Your task to perform on an android device: change alarm snooze length Image 0: 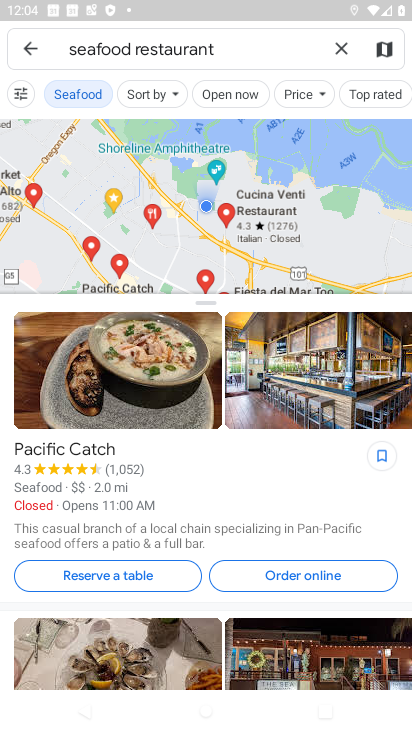
Step 0: press home button
Your task to perform on an android device: change alarm snooze length Image 1: 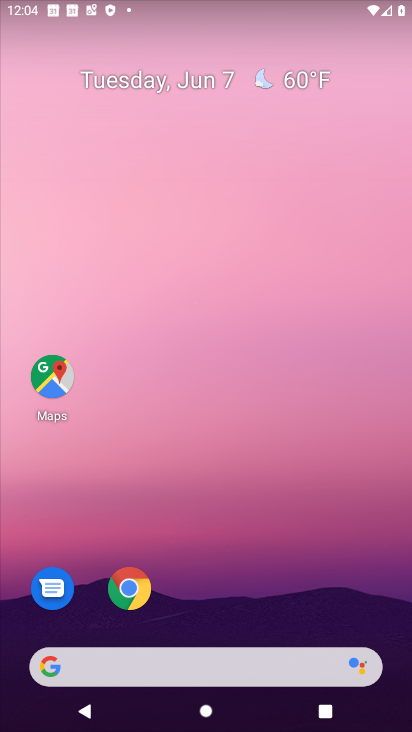
Step 1: drag from (152, 660) to (184, 114)
Your task to perform on an android device: change alarm snooze length Image 2: 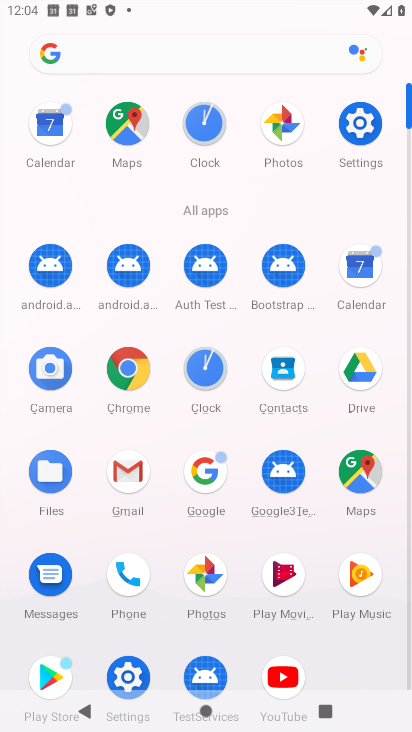
Step 2: click (203, 112)
Your task to perform on an android device: change alarm snooze length Image 3: 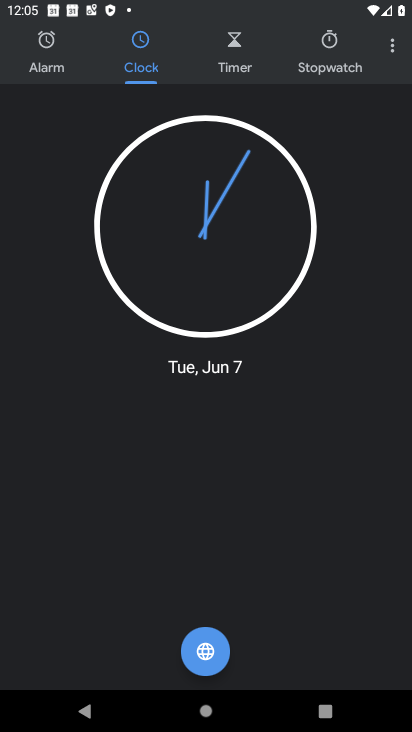
Step 3: click (389, 45)
Your task to perform on an android device: change alarm snooze length Image 4: 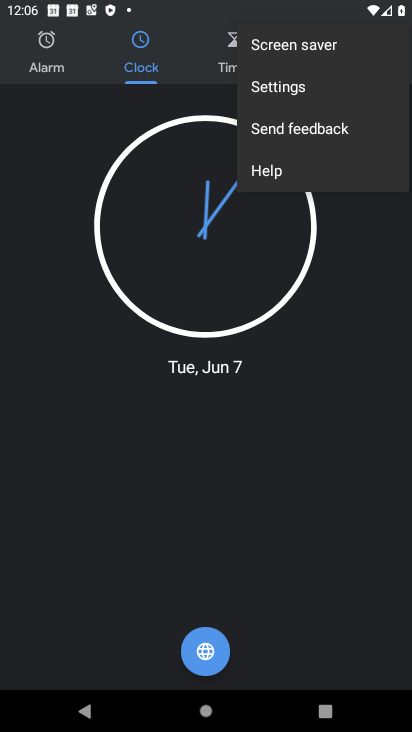
Step 4: click (296, 81)
Your task to perform on an android device: change alarm snooze length Image 5: 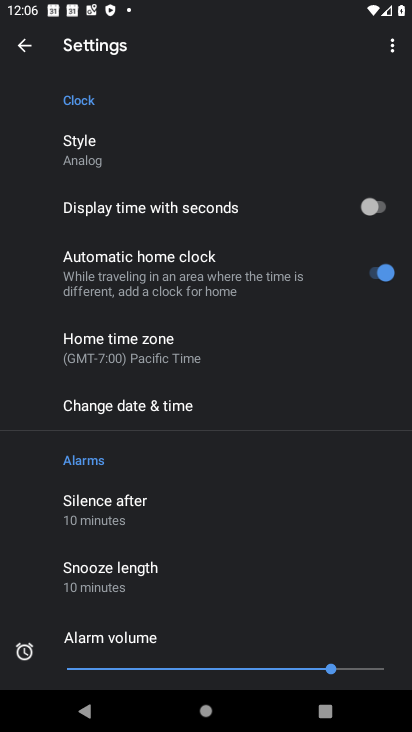
Step 5: click (150, 582)
Your task to perform on an android device: change alarm snooze length Image 6: 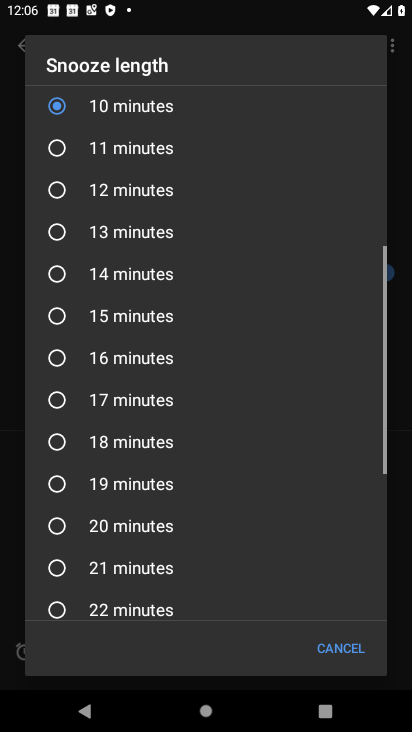
Step 6: click (140, 532)
Your task to perform on an android device: change alarm snooze length Image 7: 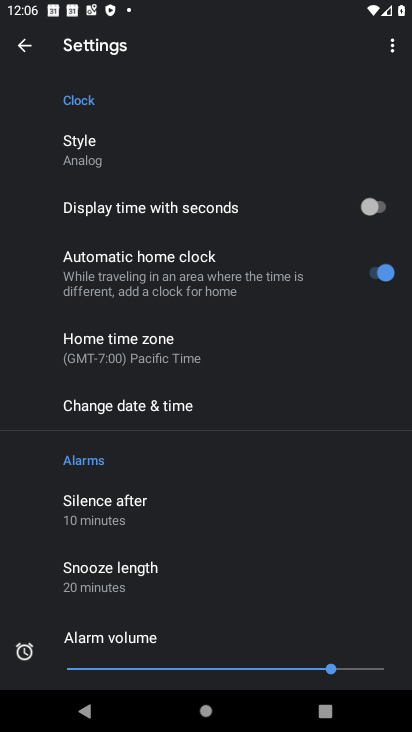
Step 7: task complete